Your task to perform on an android device: What's the price of the new iPhone Image 0: 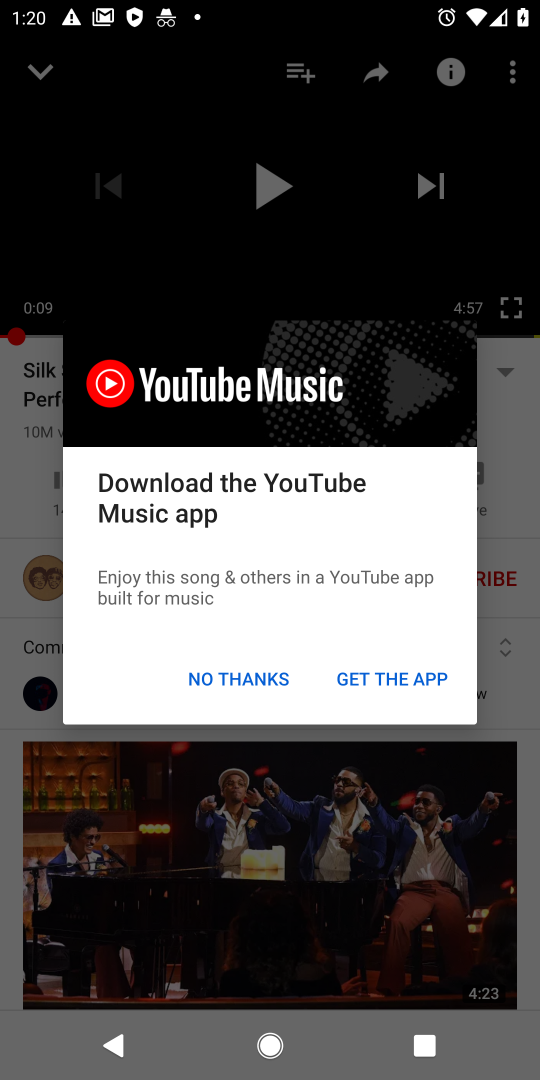
Step 0: press home button
Your task to perform on an android device: What's the price of the new iPhone Image 1: 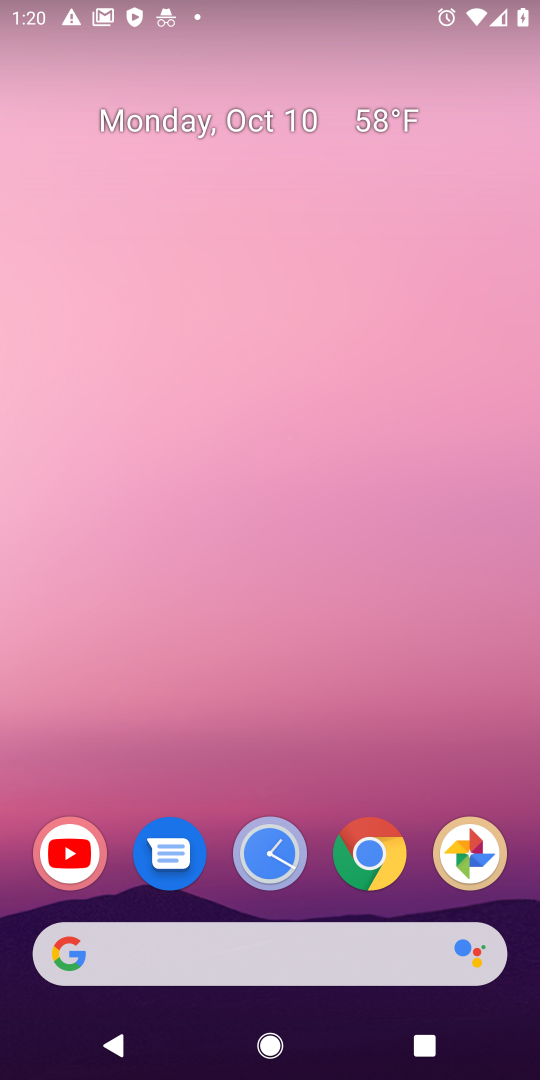
Step 1: click (366, 853)
Your task to perform on an android device: What's the price of the new iPhone Image 2: 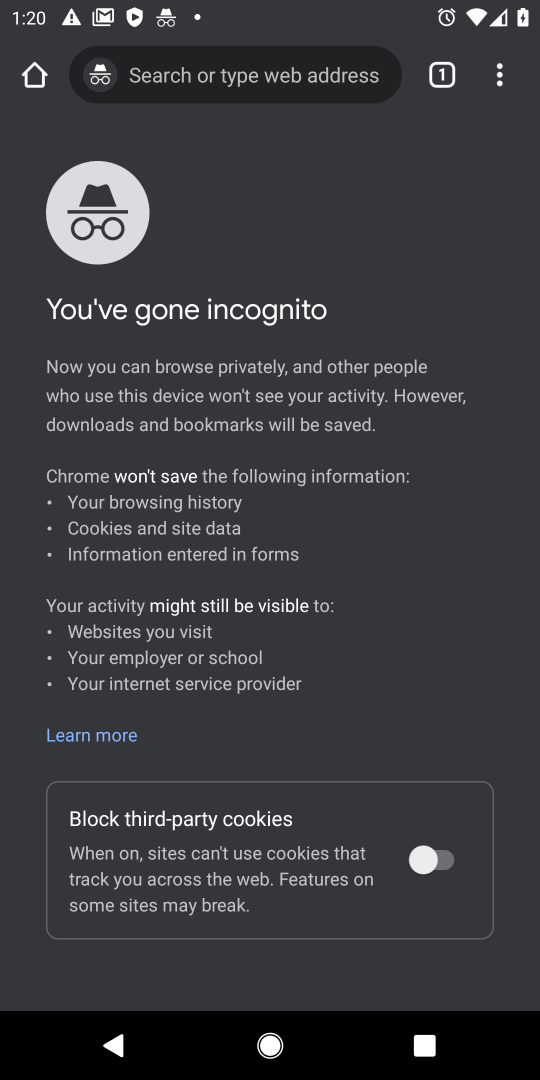
Step 2: click (243, 83)
Your task to perform on an android device: What's the price of the new iPhone Image 3: 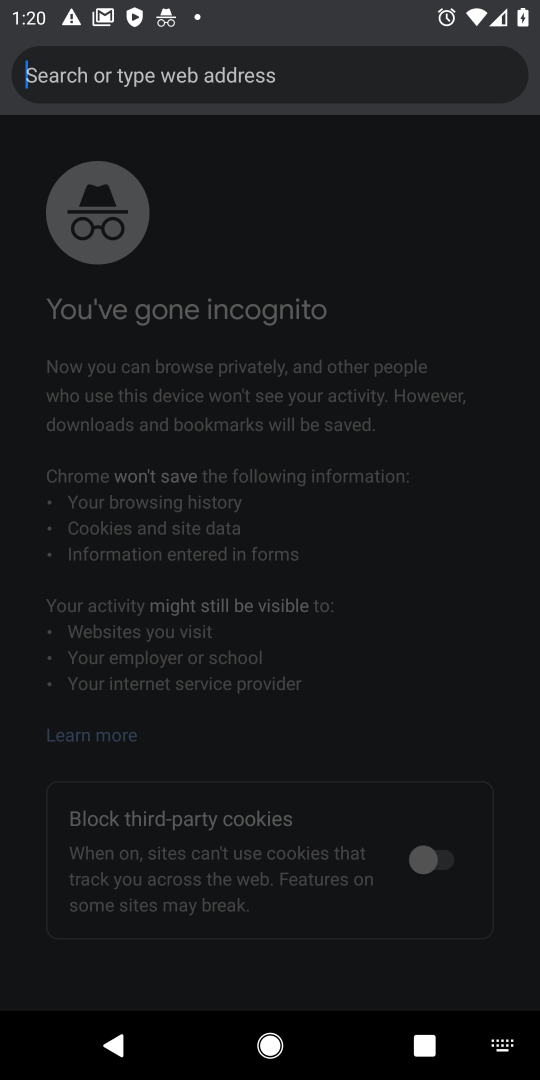
Step 3: type "What's the price of the new iPhone"
Your task to perform on an android device: What's the price of the new iPhone Image 4: 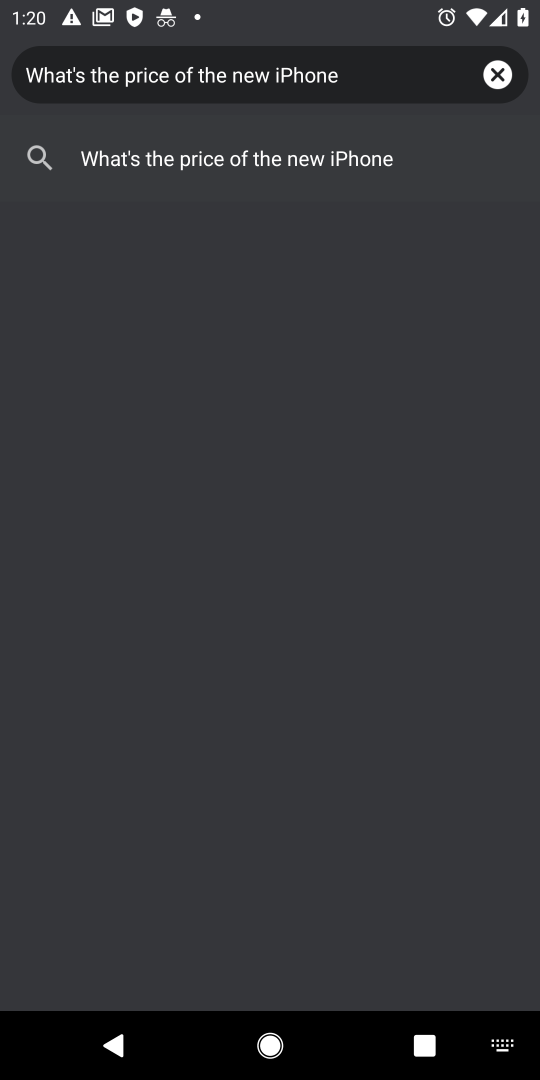
Step 4: click (274, 148)
Your task to perform on an android device: What's the price of the new iPhone Image 5: 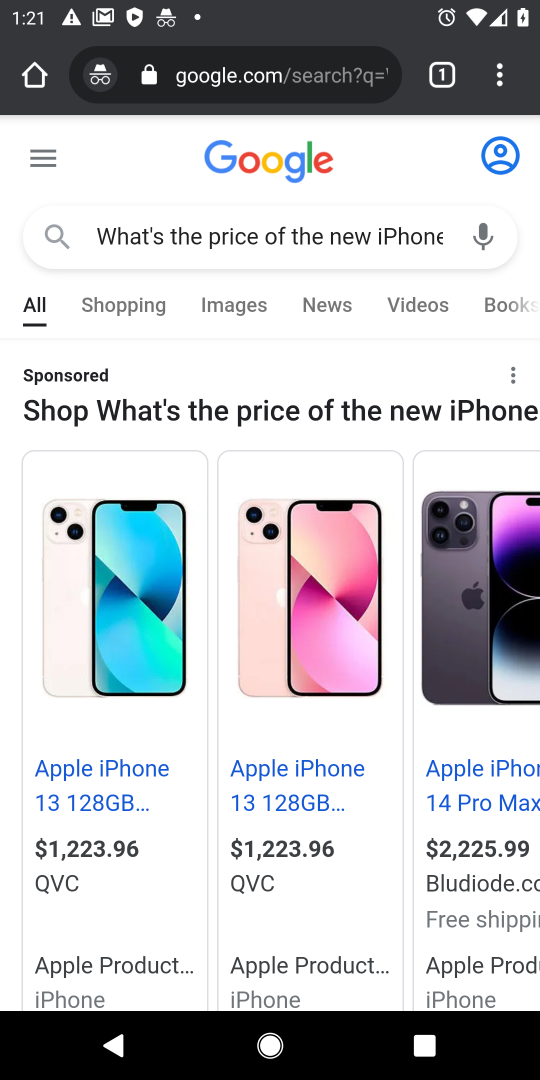
Step 5: task complete